Your task to perform on an android device: Open Chrome and go to settings Image 0: 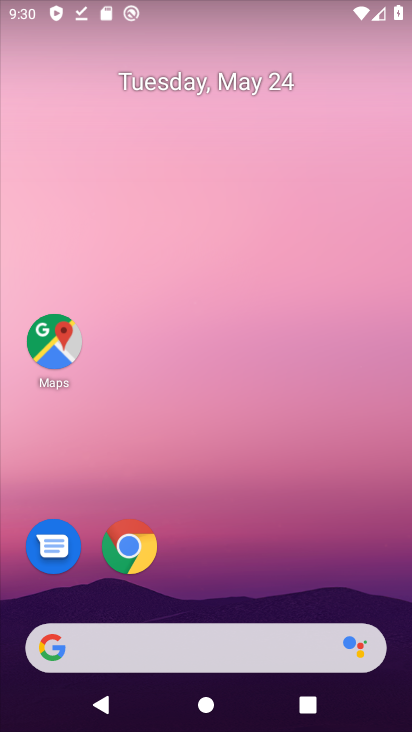
Step 0: click (137, 551)
Your task to perform on an android device: Open Chrome and go to settings Image 1: 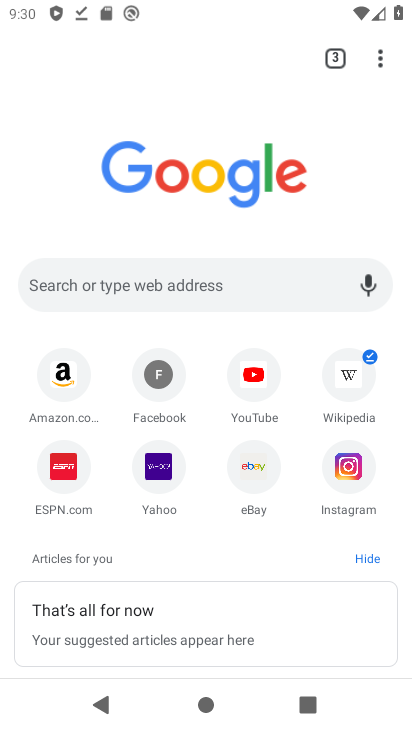
Step 1: click (376, 60)
Your task to perform on an android device: Open Chrome and go to settings Image 2: 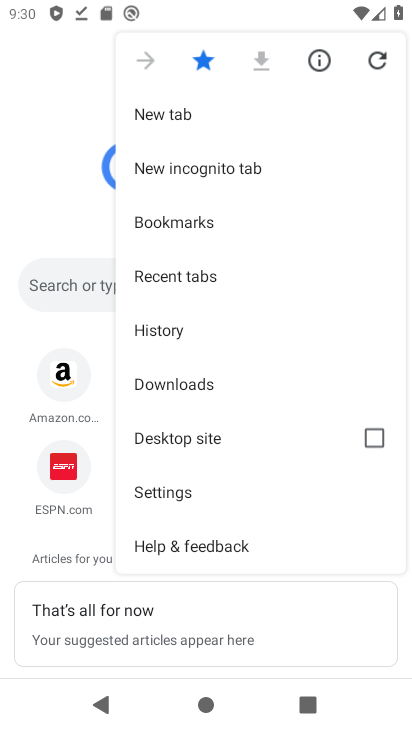
Step 2: click (185, 478)
Your task to perform on an android device: Open Chrome and go to settings Image 3: 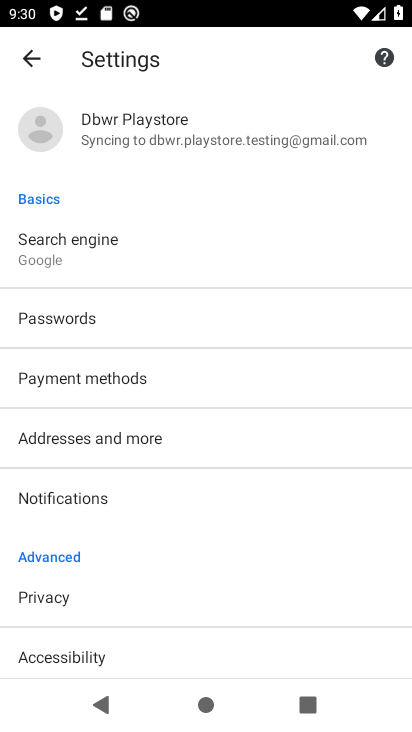
Step 3: task complete